Your task to perform on an android device: Open Chrome and go to the settings page Image 0: 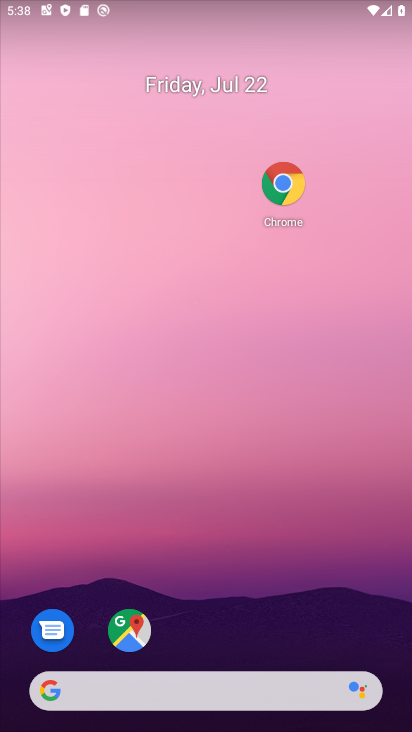
Step 0: click (284, 170)
Your task to perform on an android device: Open Chrome and go to the settings page Image 1: 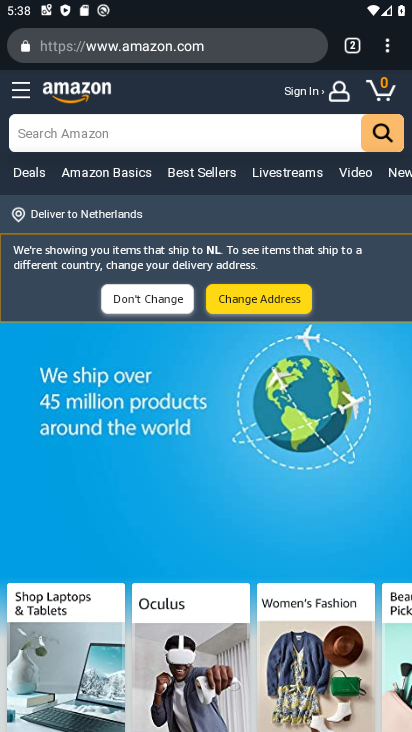
Step 1: click (387, 51)
Your task to perform on an android device: Open Chrome and go to the settings page Image 2: 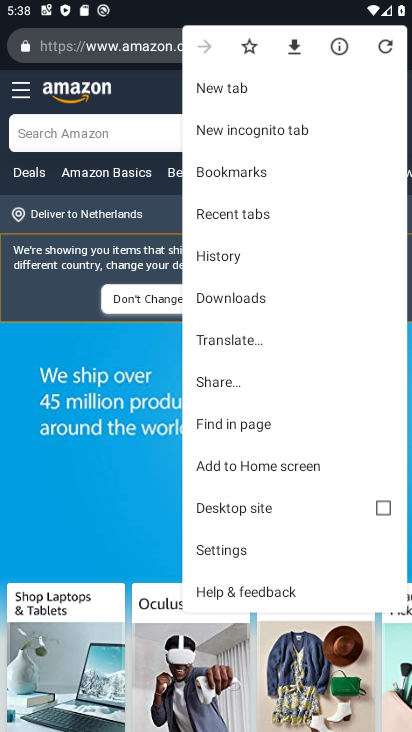
Step 2: click (214, 544)
Your task to perform on an android device: Open Chrome and go to the settings page Image 3: 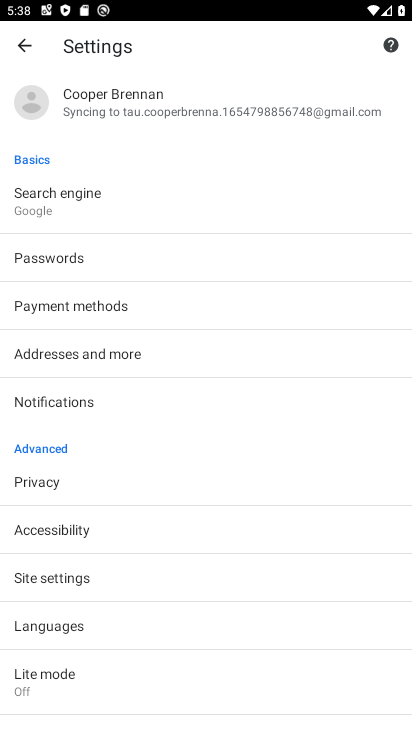
Step 3: task complete